Your task to perform on an android device: check google app version Image 0: 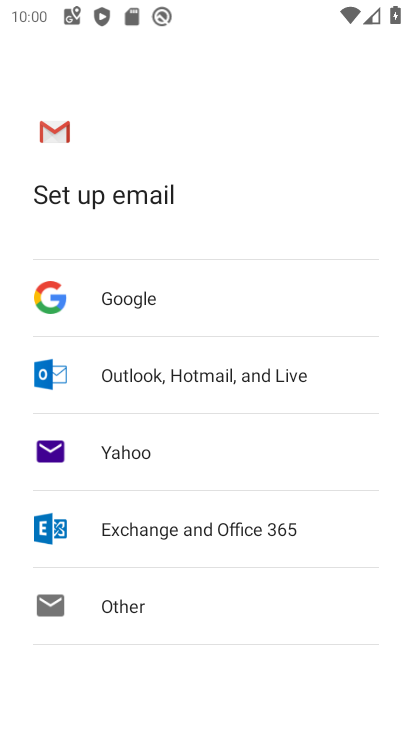
Step 0: press home button
Your task to perform on an android device: check google app version Image 1: 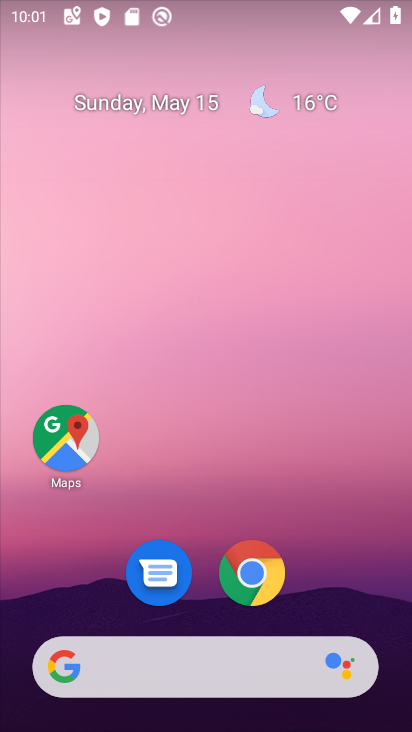
Step 1: drag from (350, 573) to (299, 66)
Your task to perform on an android device: check google app version Image 2: 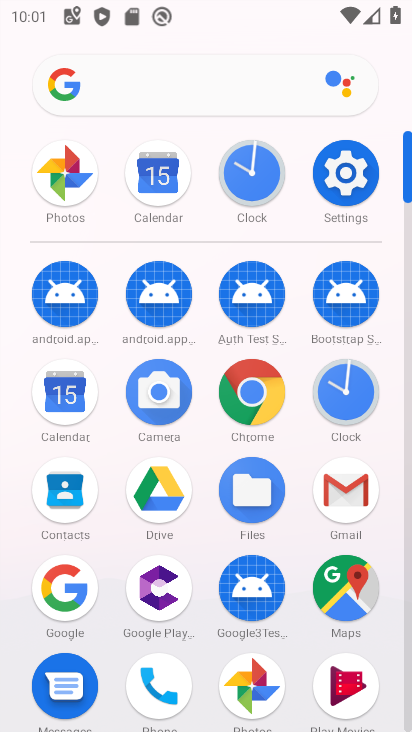
Step 2: click (70, 584)
Your task to perform on an android device: check google app version Image 3: 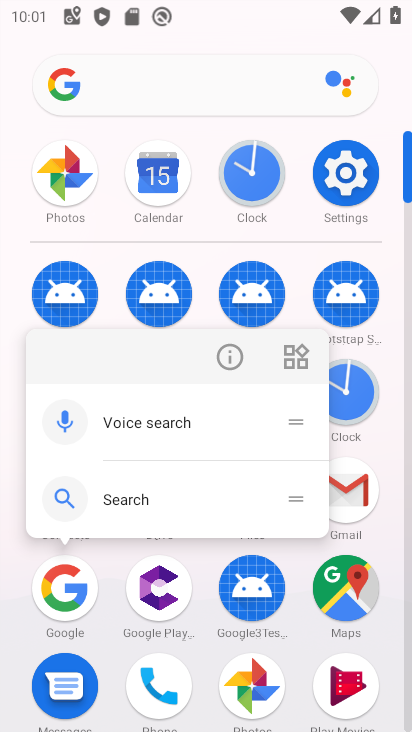
Step 3: click (220, 363)
Your task to perform on an android device: check google app version Image 4: 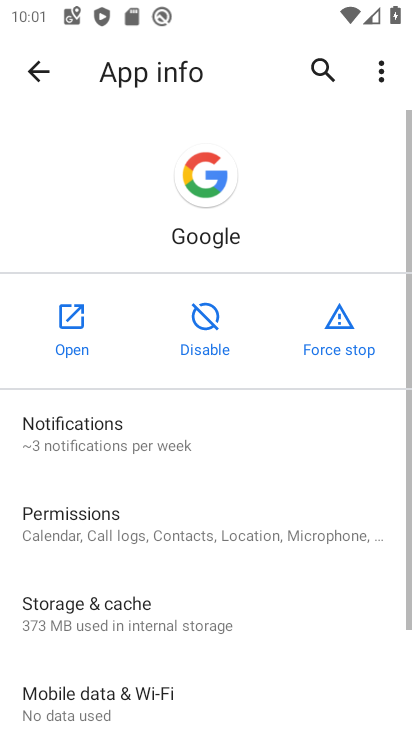
Step 4: drag from (205, 630) to (186, 157)
Your task to perform on an android device: check google app version Image 5: 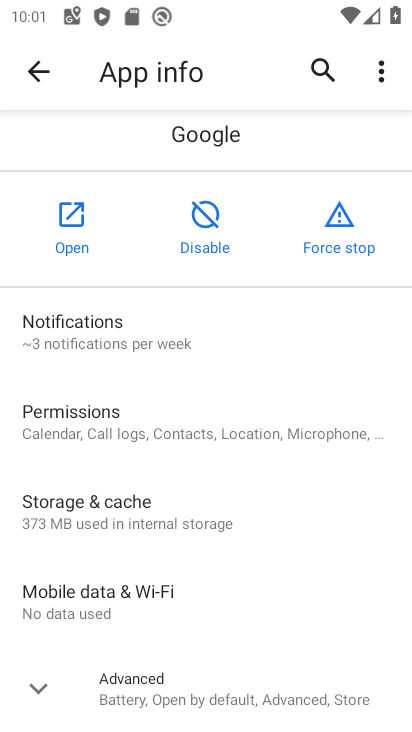
Step 5: click (71, 700)
Your task to perform on an android device: check google app version Image 6: 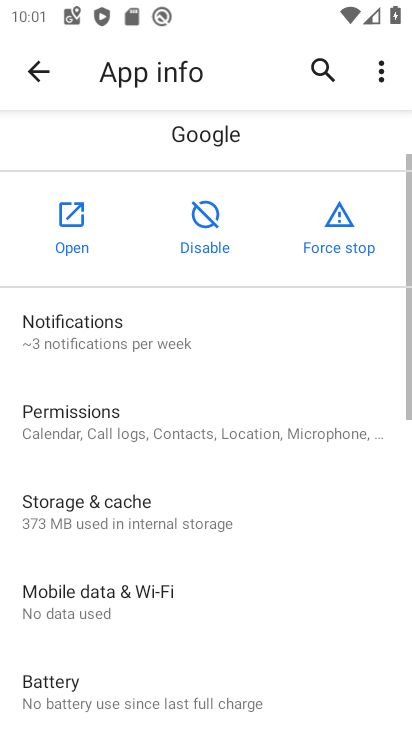
Step 6: task complete